Your task to perform on an android device: Open a new incognito tab in Chrome Image 0: 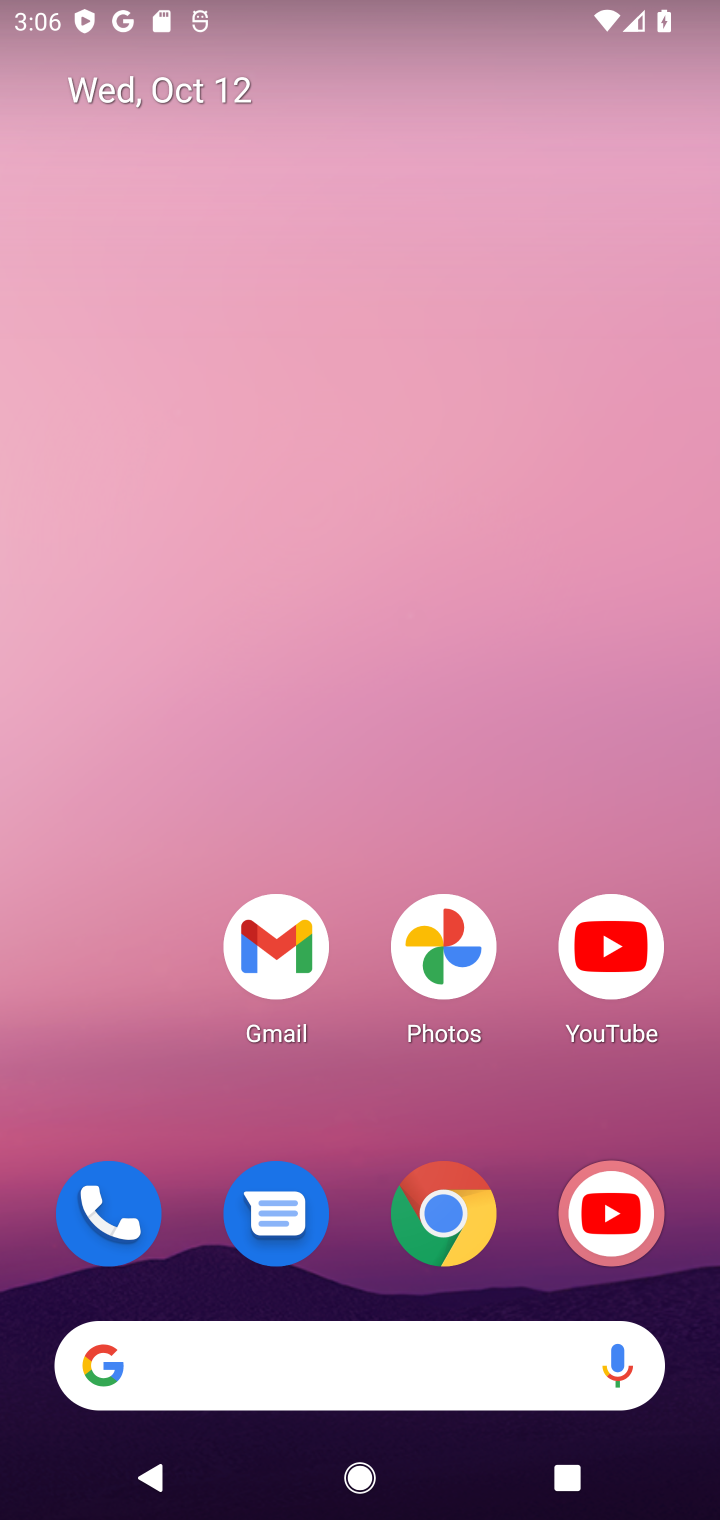
Step 0: click (463, 1194)
Your task to perform on an android device: Open a new incognito tab in Chrome Image 1: 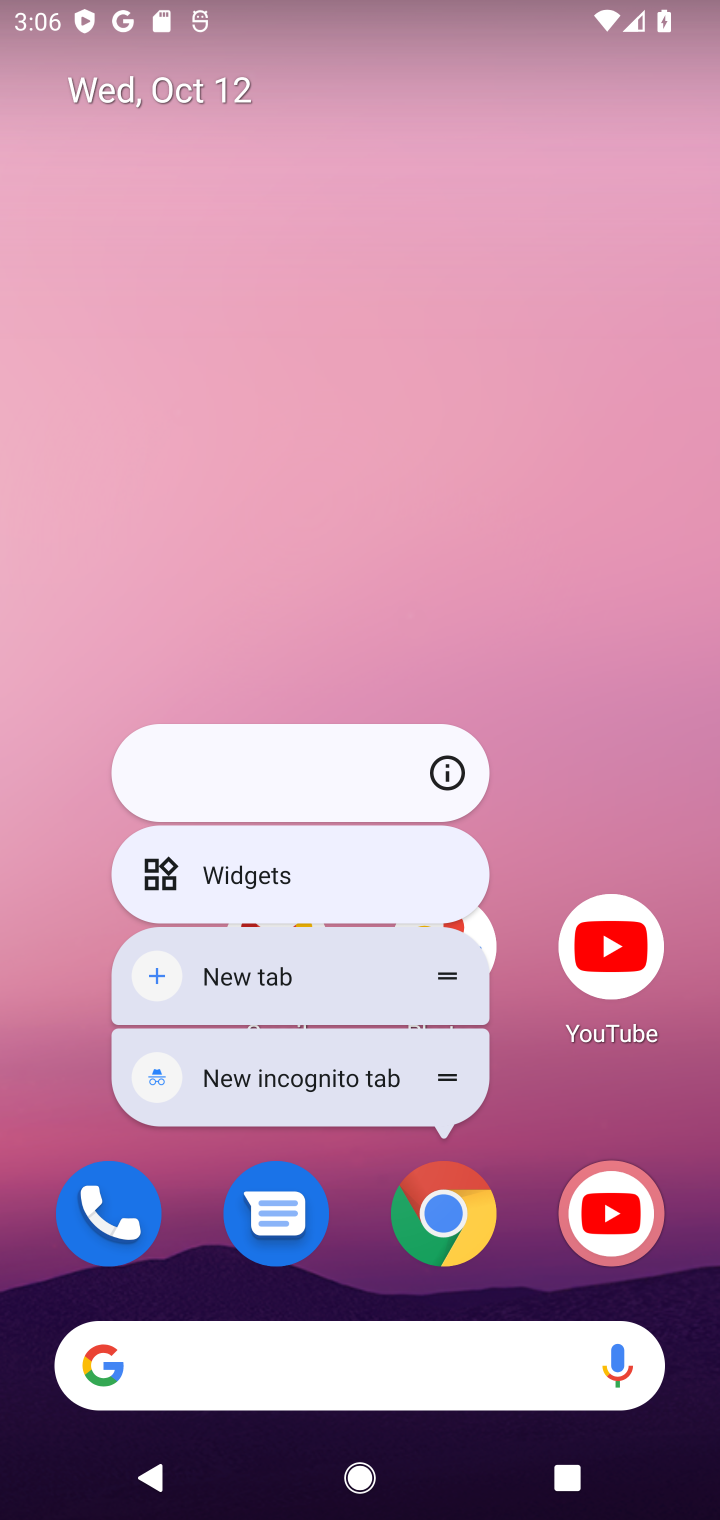
Step 1: click (428, 1205)
Your task to perform on an android device: Open a new incognito tab in Chrome Image 2: 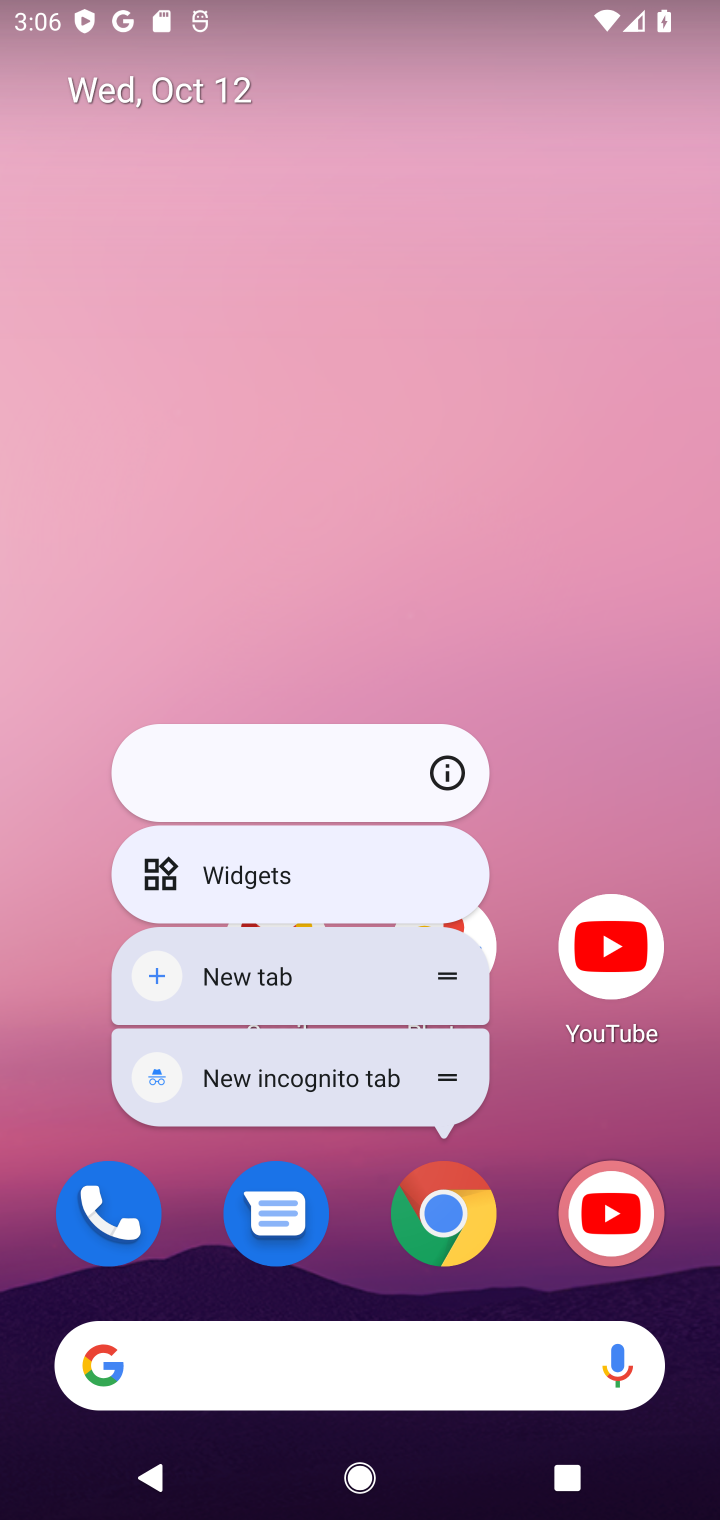
Step 2: click (434, 1202)
Your task to perform on an android device: Open a new incognito tab in Chrome Image 3: 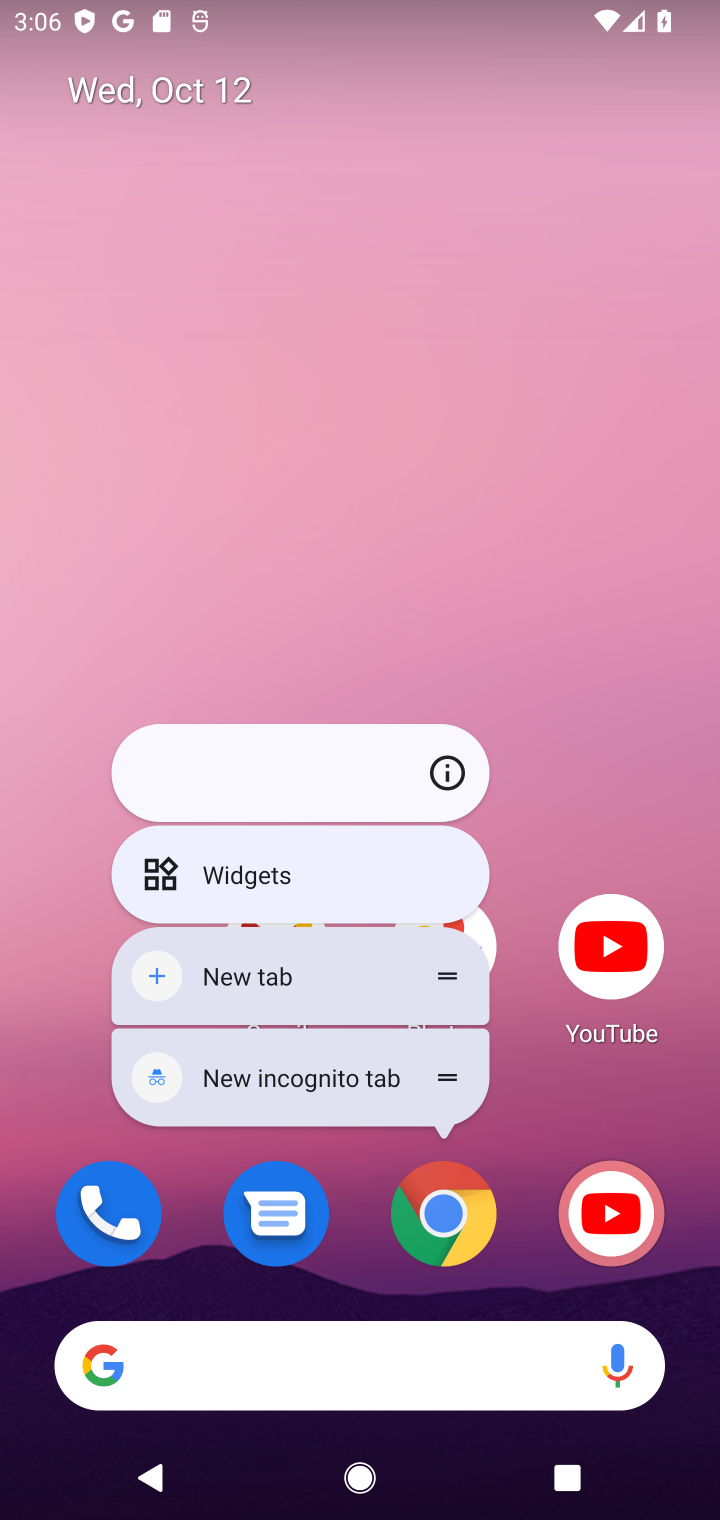
Step 3: click (434, 1240)
Your task to perform on an android device: Open a new incognito tab in Chrome Image 4: 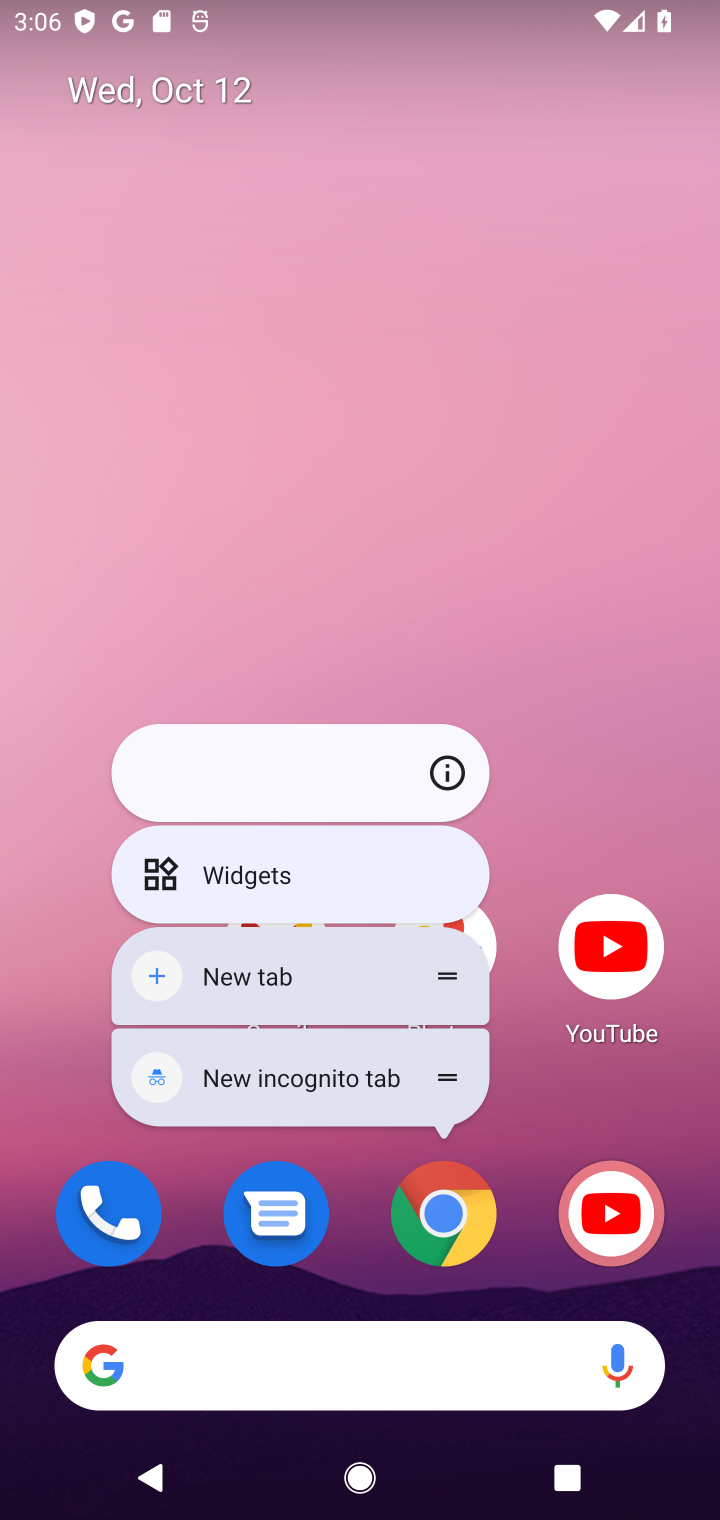
Step 4: click (445, 1234)
Your task to perform on an android device: Open a new incognito tab in Chrome Image 5: 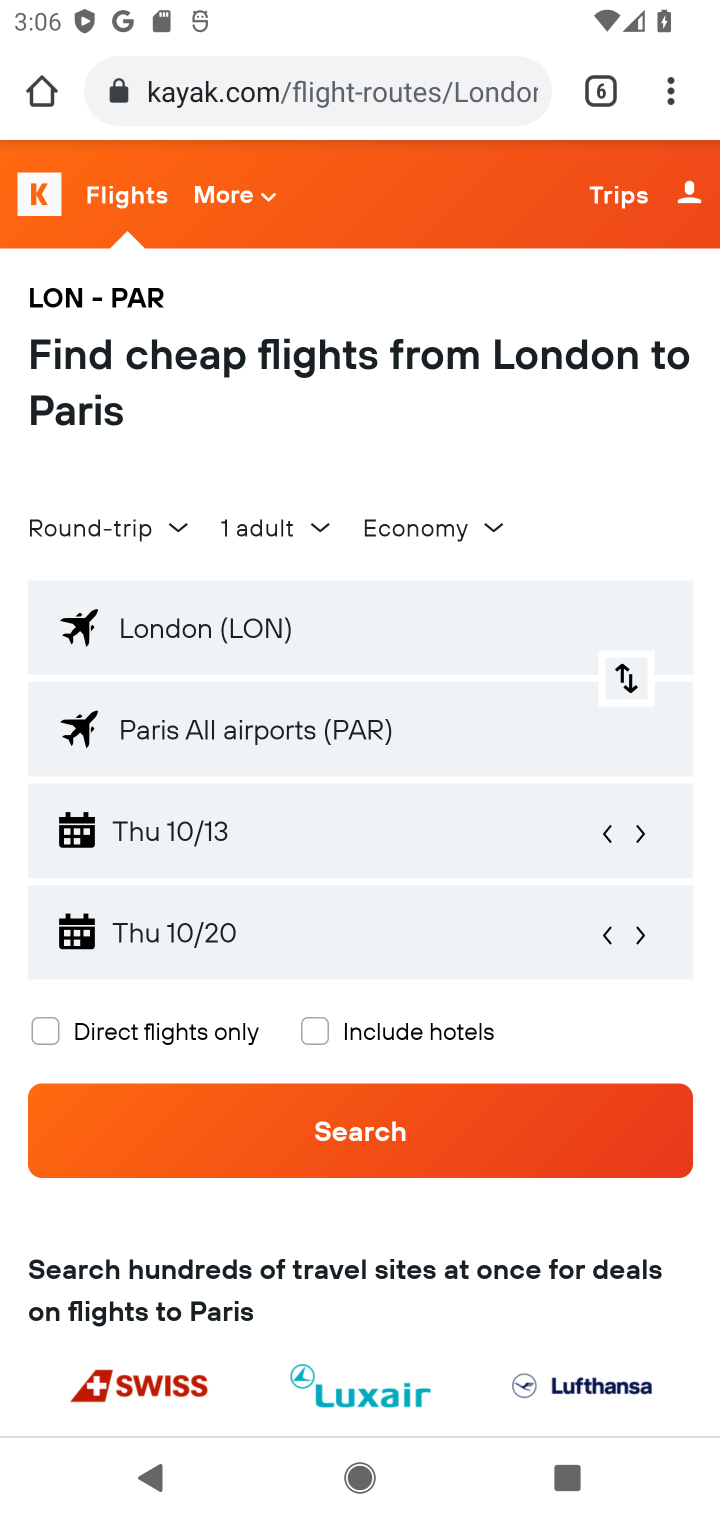
Step 5: task complete